Your task to perform on an android device: delete location history Image 0: 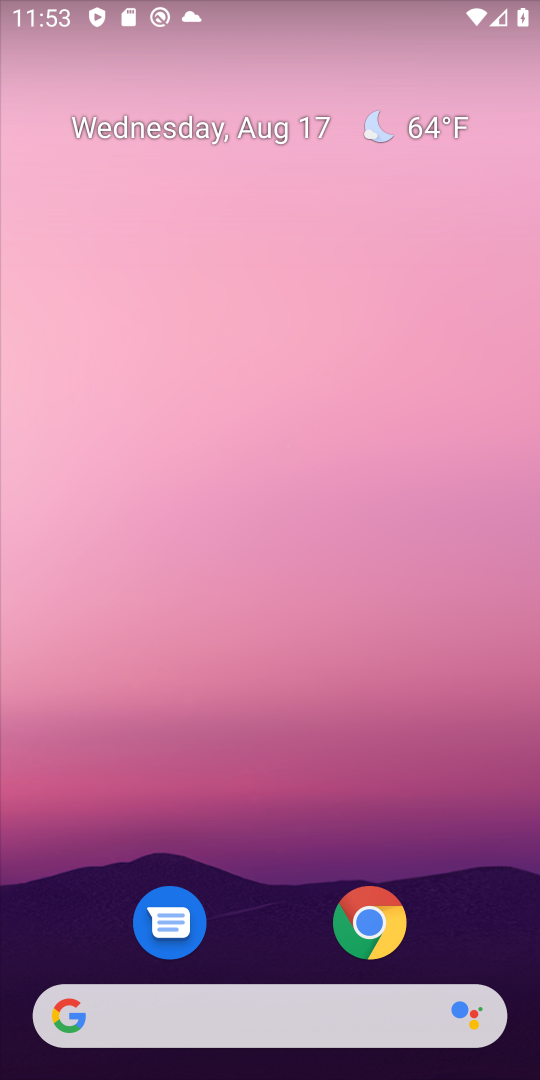
Step 0: drag from (274, 873) to (327, 19)
Your task to perform on an android device: delete location history Image 1: 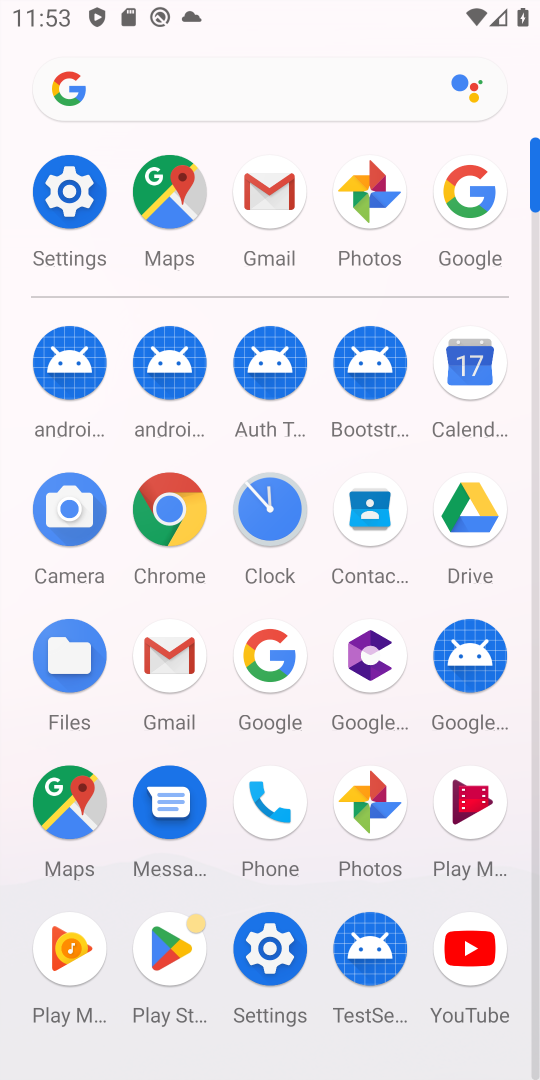
Step 1: click (175, 194)
Your task to perform on an android device: delete location history Image 2: 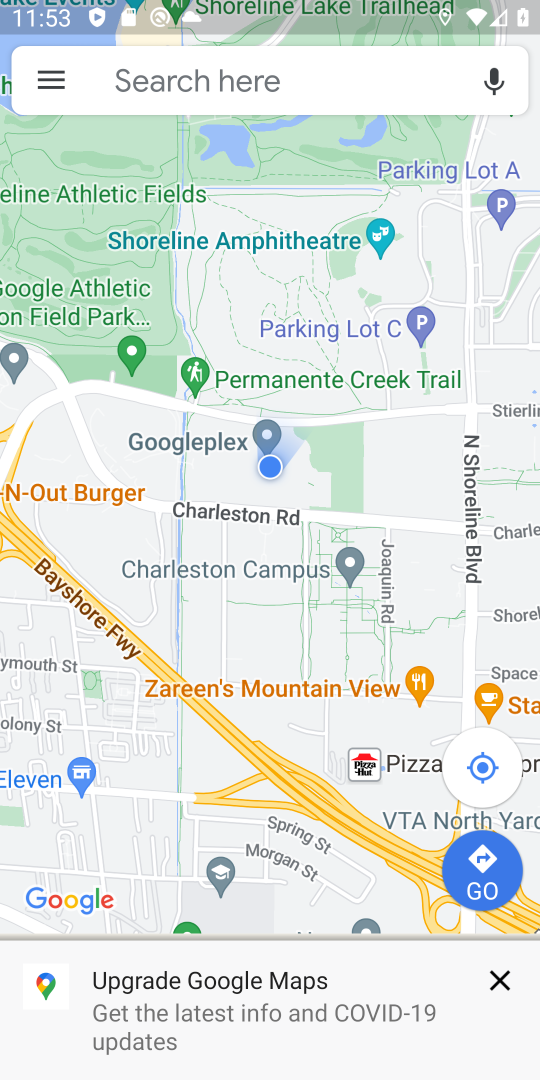
Step 2: click (48, 70)
Your task to perform on an android device: delete location history Image 3: 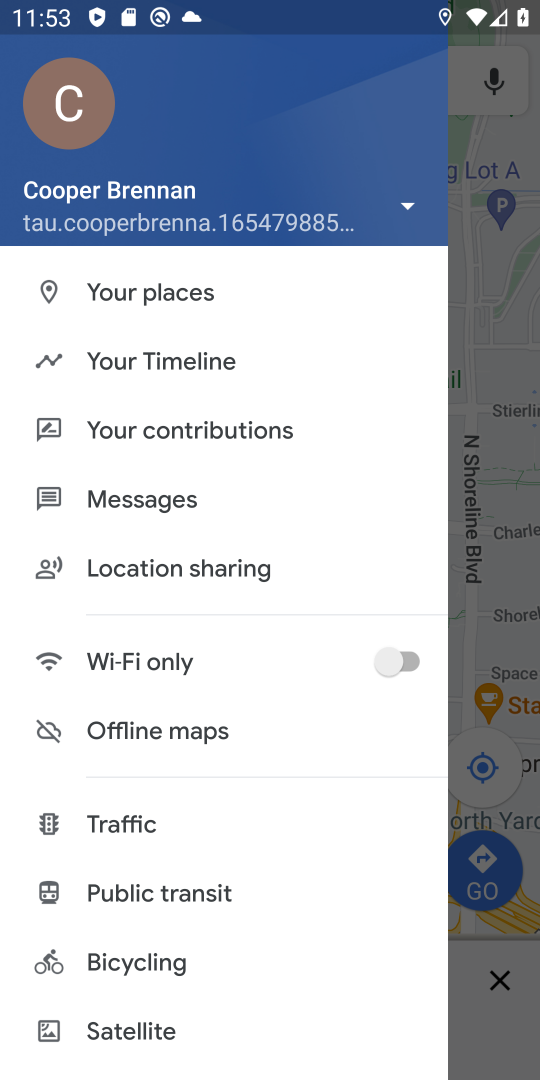
Step 3: click (159, 361)
Your task to perform on an android device: delete location history Image 4: 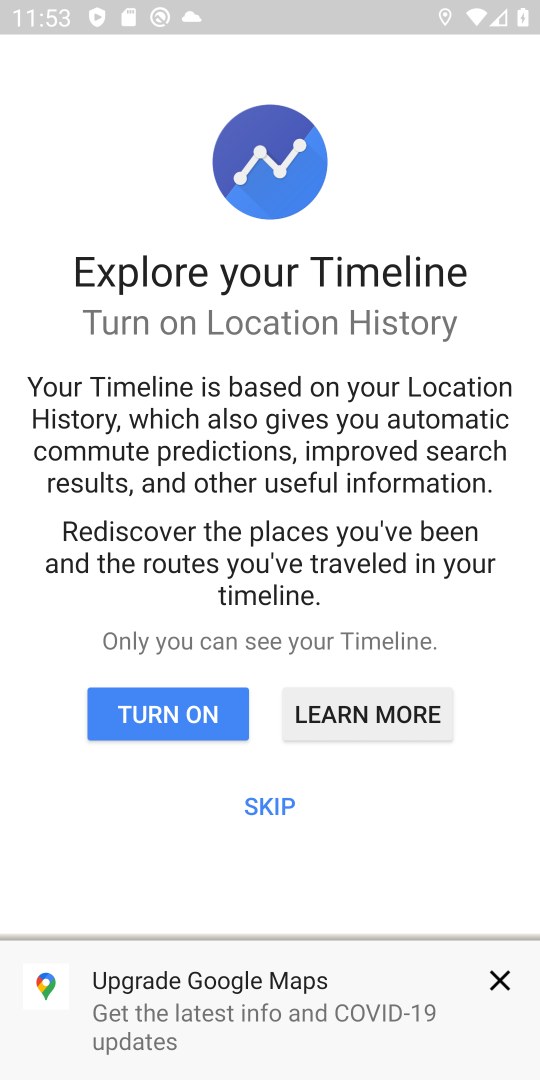
Step 4: click (260, 799)
Your task to perform on an android device: delete location history Image 5: 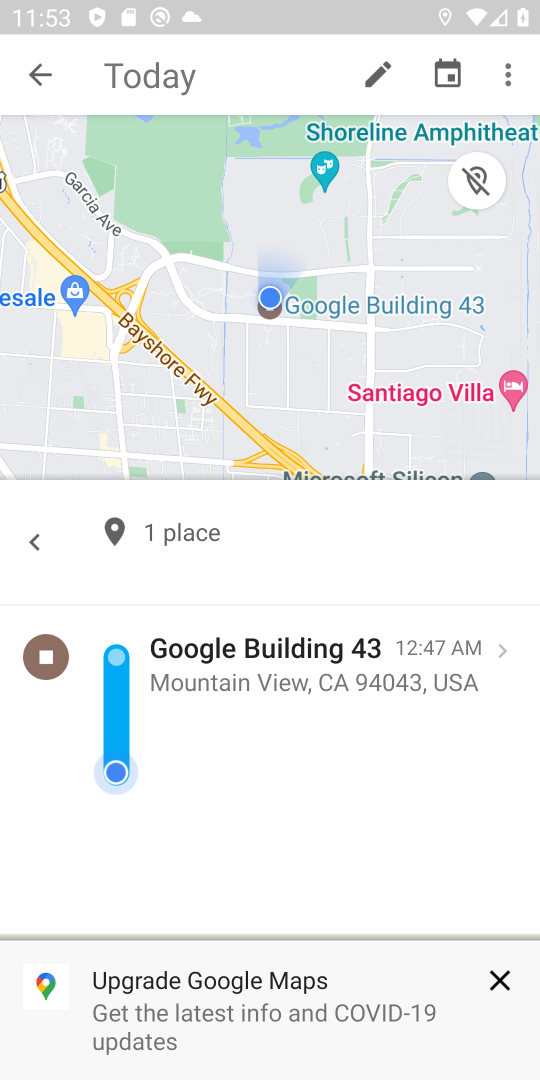
Step 5: click (500, 73)
Your task to perform on an android device: delete location history Image 6: 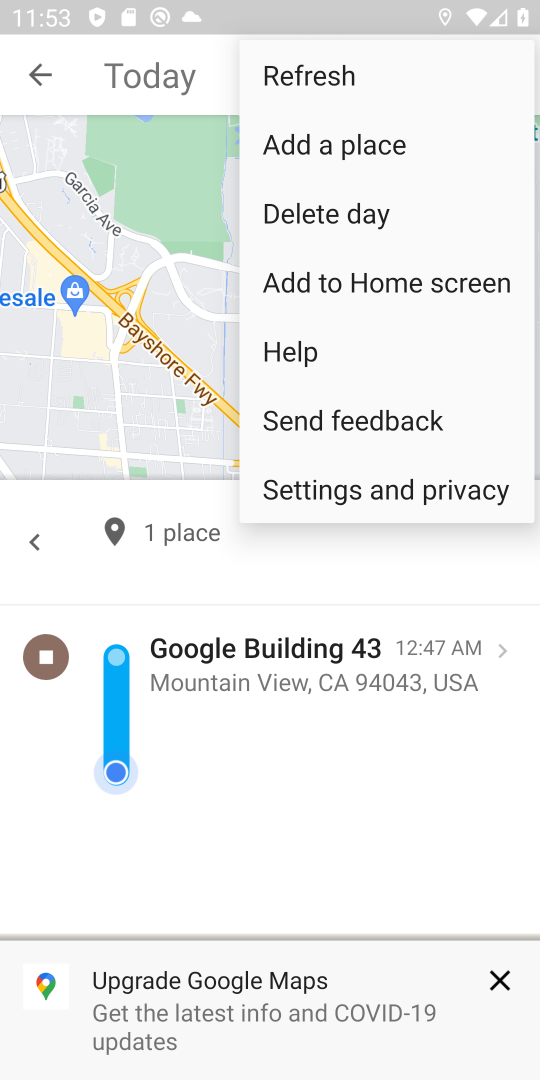
Step 6: click (395, 482)
Your task to perform on an android device: delete location history Image 7: 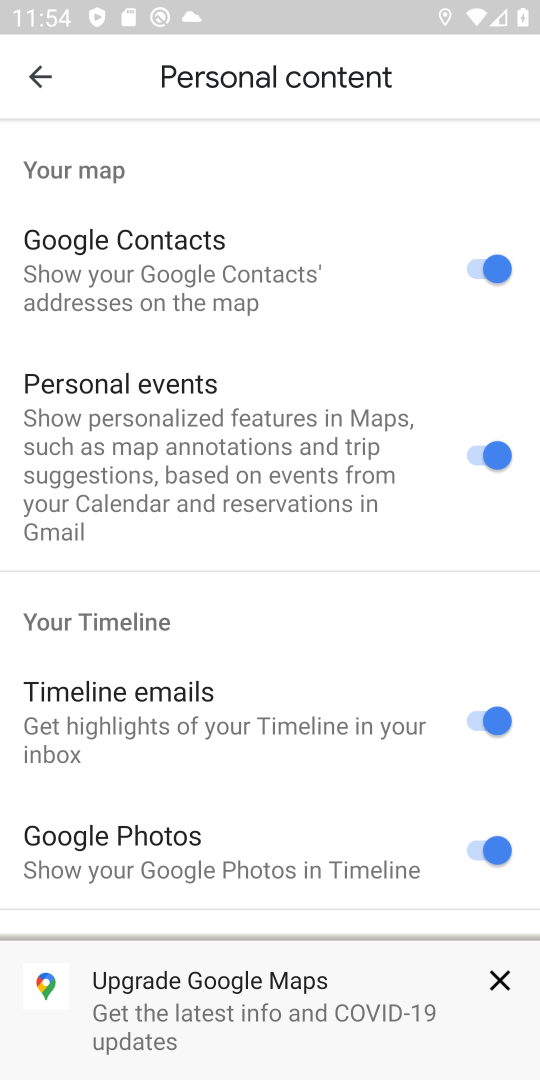
Step 7: drag from (271, 781) to (303, 278)
Your task to perform on an android device: delete location history Image 8: 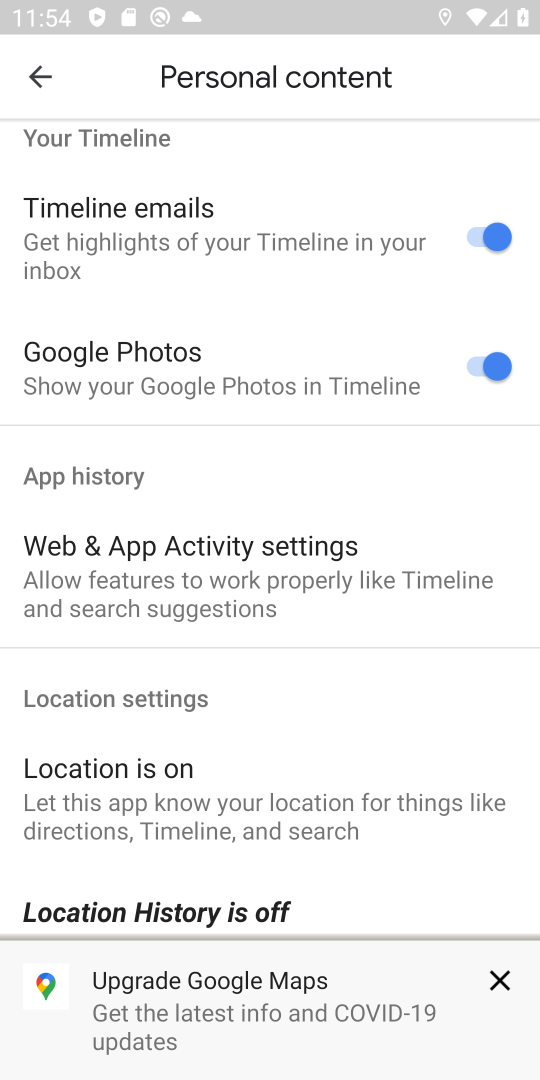
Step 8: drag from (251, 728) to (301, 346)
Your task to perform on an android device: delete location history Image 9: 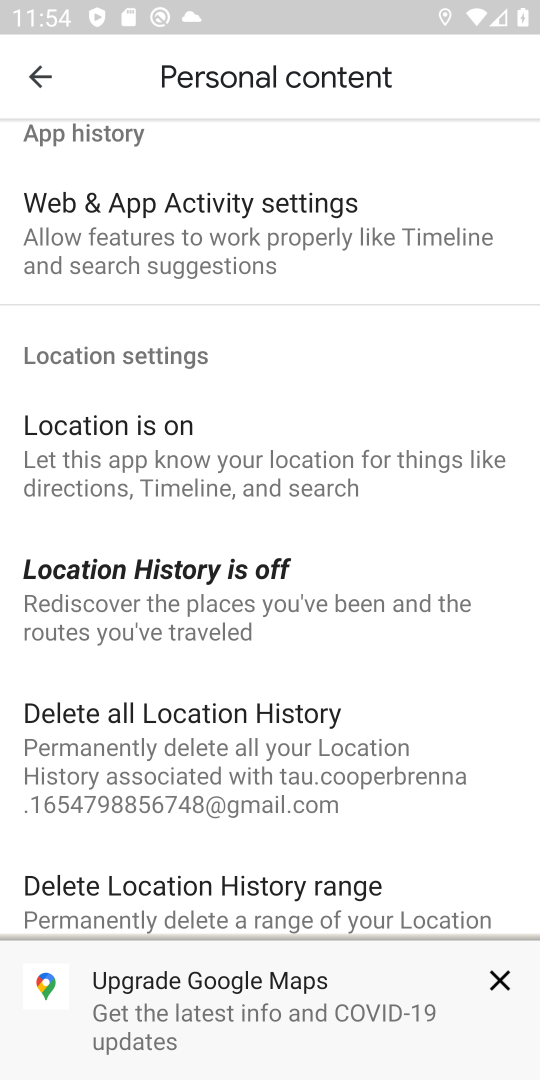
Step 9: click (142, 708)
Your task to perform on an android device: delete location history Image 10: 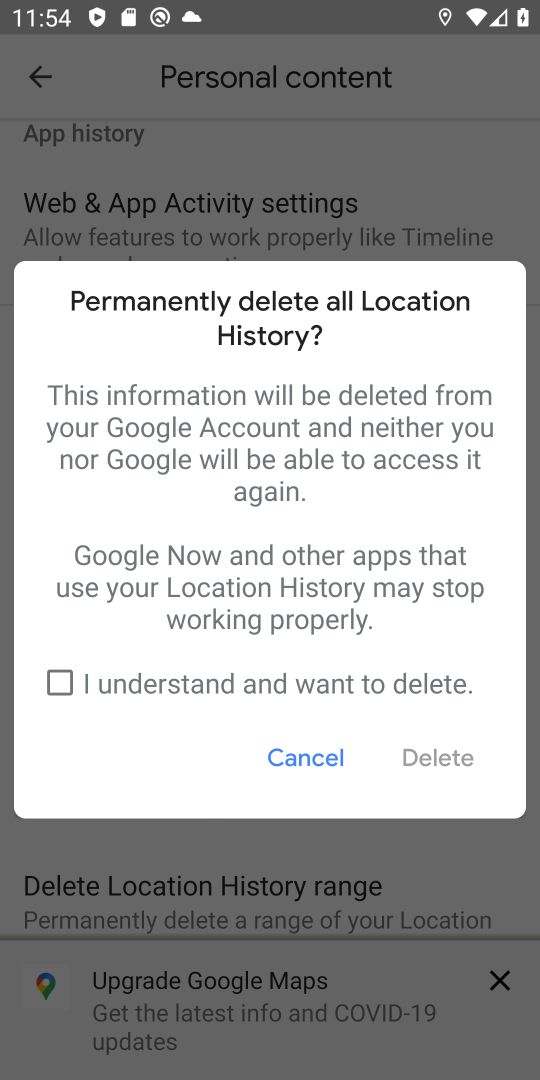
Step 10: click (70, 678)
Your task to perform on an android device: delete location history Image 11: 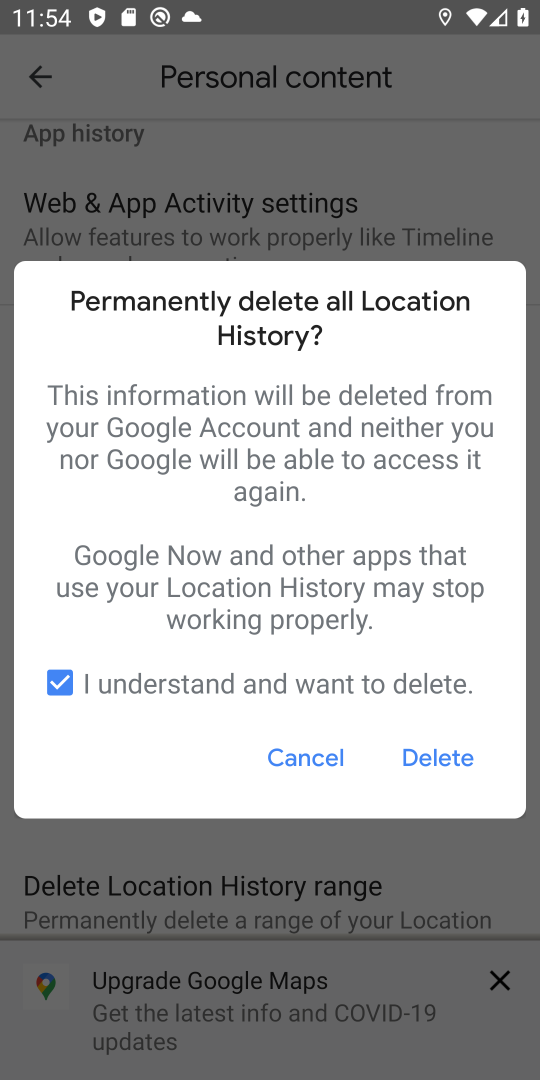
Step 11: click (429, 753)
Your task to perform on an android device: delete location history Image 12: 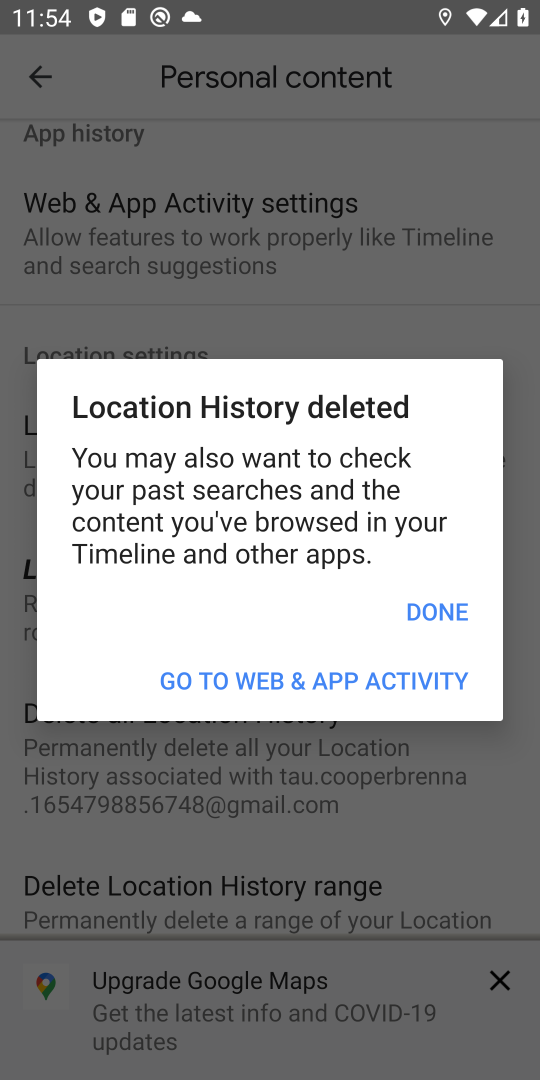
Step 12: click (443, 608)
Your task to perform on an android device: delete location history Image 13: 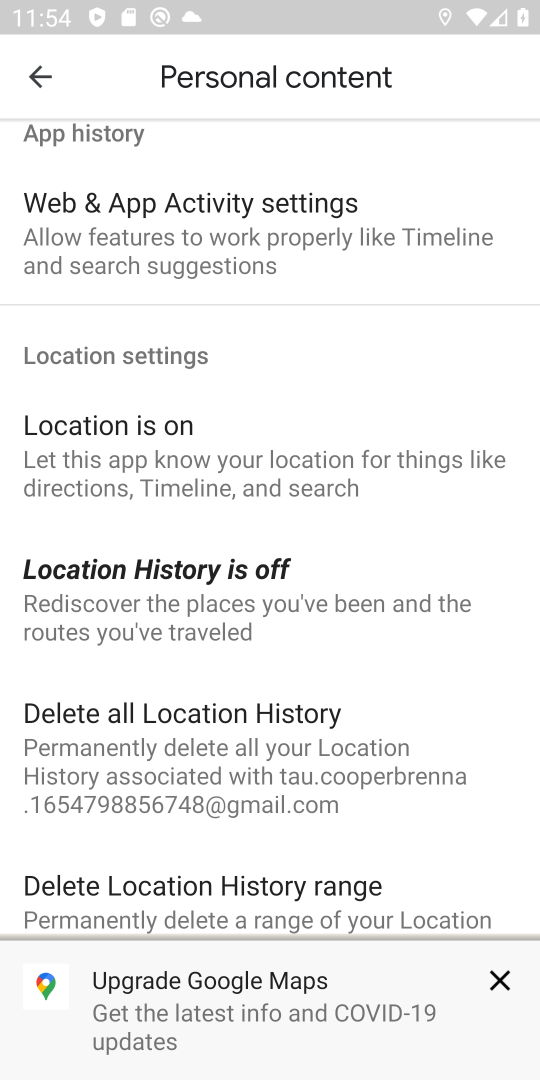
Step 13: task complete